Your task to perform on an android device: open app "Reddit" (install if not already installed) Image 0: 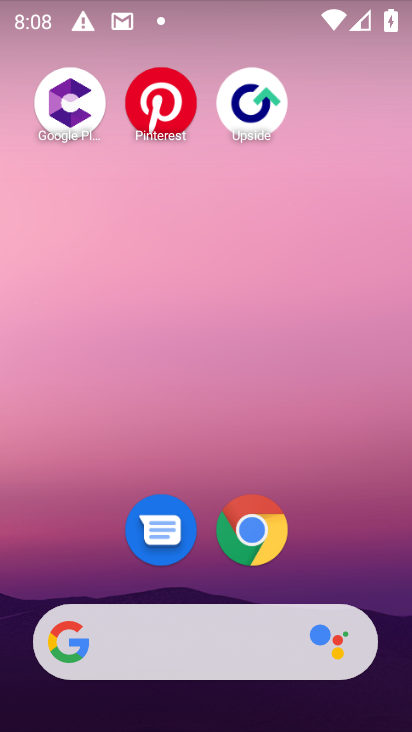
Step 0: drag from (156, 703) to (158, 116)
Your task to perform on an android device: open app "Reddit" (install if not already installed) Image 1: 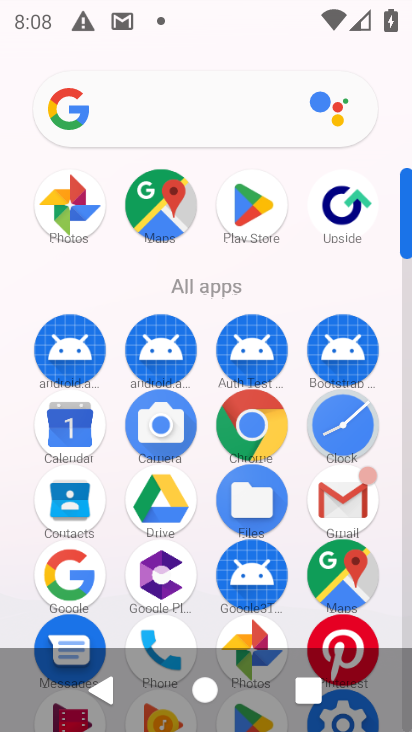
Step 1: click (266, 210)
Your task to perform on an android device: open app "Reddit" (install if not already installed) Image 2: 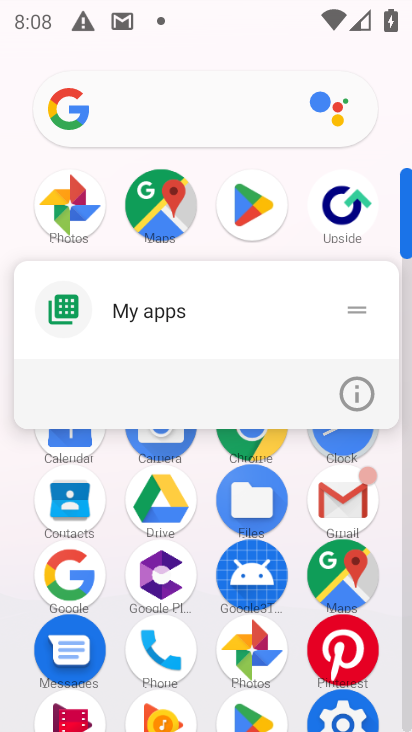
Step 2: click (264, 210)
Your task to perform on an android device: open app "Reddit" (install if not already installed) Image 3: 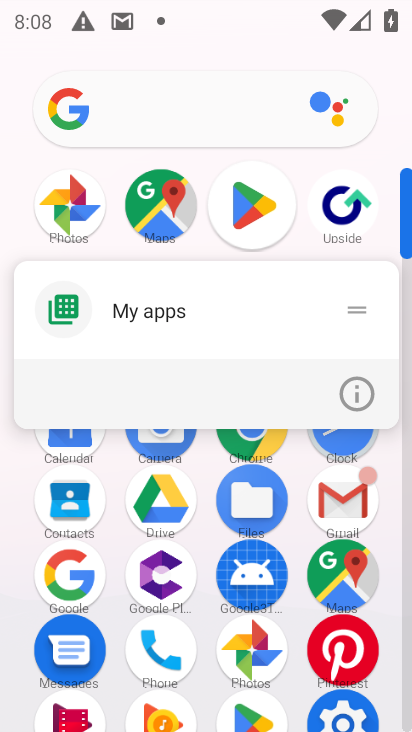
Step 3: click (264, 210)
Your task to perform on an android device: open app "Reddit" (install if not already installed) Image 4: 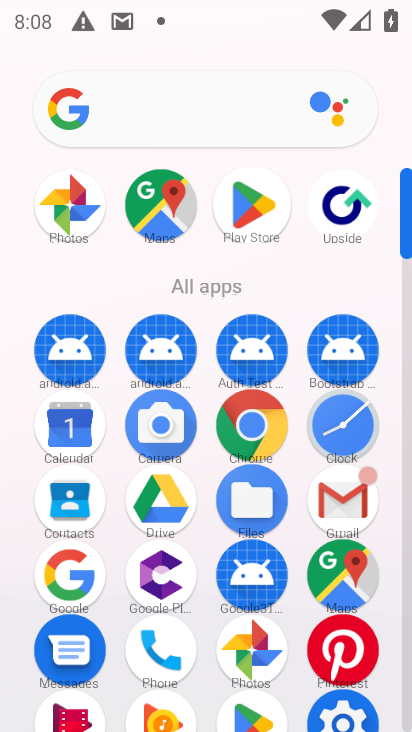
Step 4: click (264, 210)
Your task to perform on an android device: open app "Reddit" (install if not already installed) Image 5: 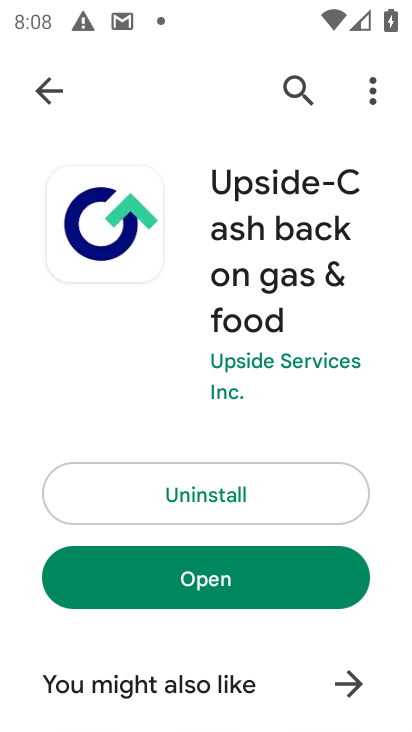
Step 5: click (299, 92)
Your task to perform on an android device: open app "Reddit" (install if not already installed) Image 6: 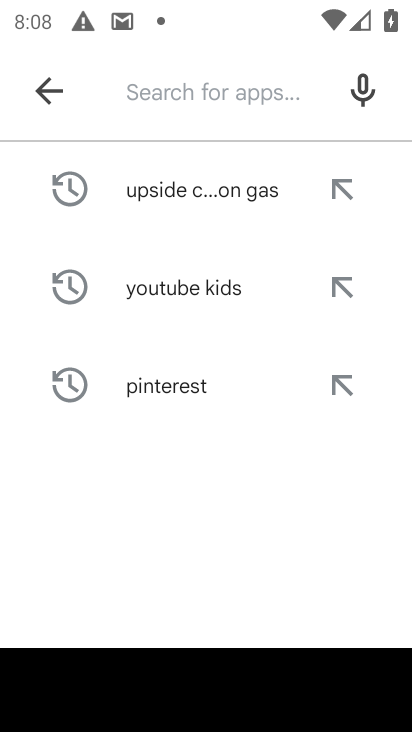
Step 6: type "reddit"
Your task to perform on an android device: open app "Reddit" (install if not already installed) Image 7: 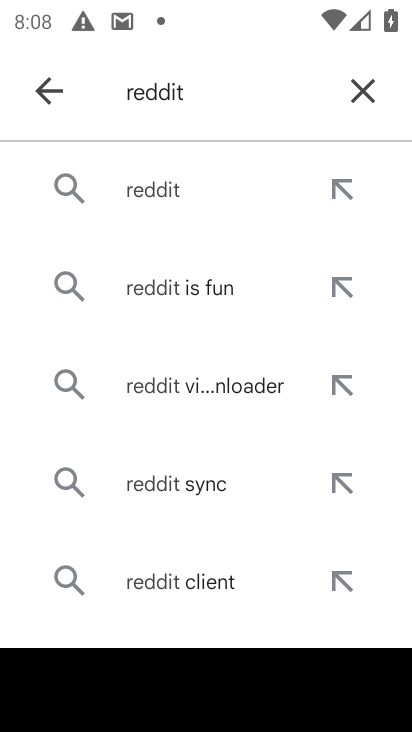
Step 7: click (179, 183)
Your task to perform on an android device: open app "Reddit" (install if not already installed) Image 8: 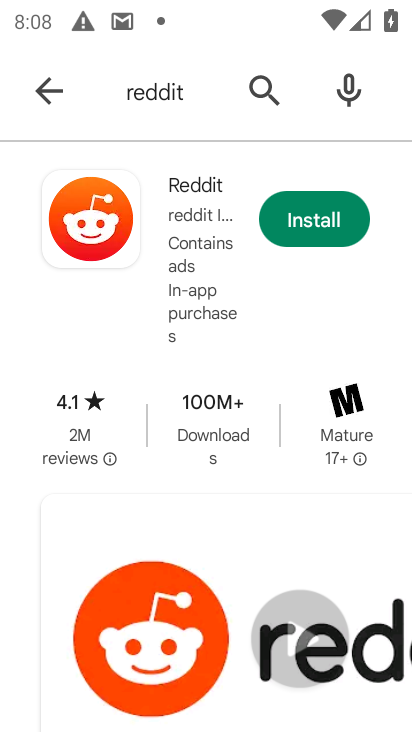
Step 8: click (329, 221)
Your task to perform on an android device: open app "Reddit" (install if not already installed) Image 9: 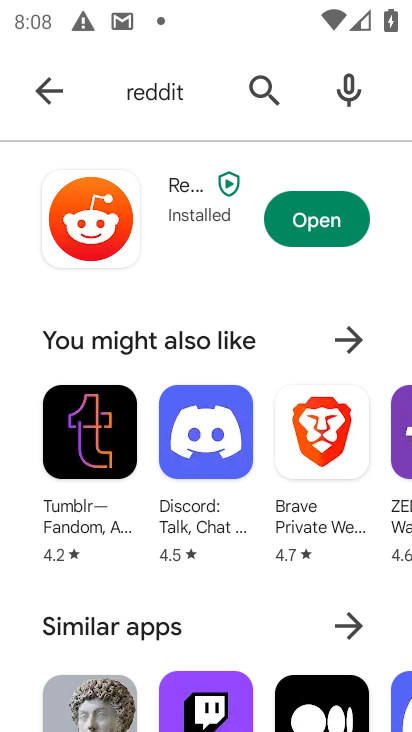
Step 9: click (318, 215)
Your task to perform on an android device: open app "Reddit" (install if not already installed) Image 10: 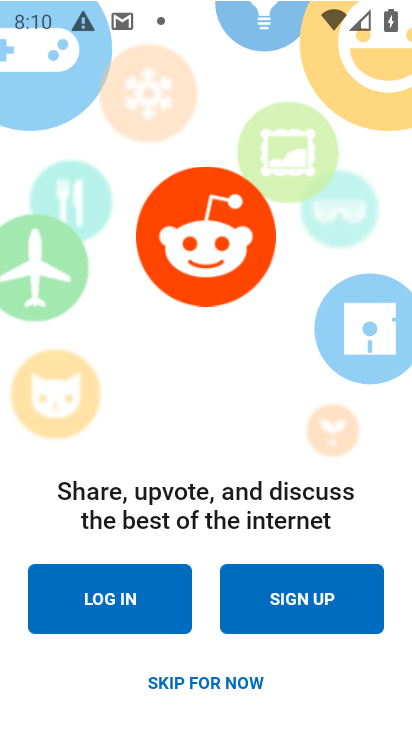
Step 10: task complete